Your task to perform on an android device: stop showing notifications on the lock screen Image 0: 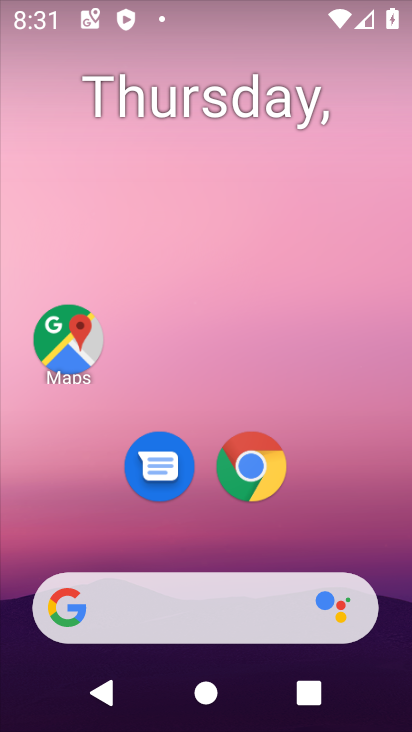
Step 0: drag from (357, 517) to (294, 161)
Your task to perform on an android device: stop showing notifications on the lock screen Image 1: 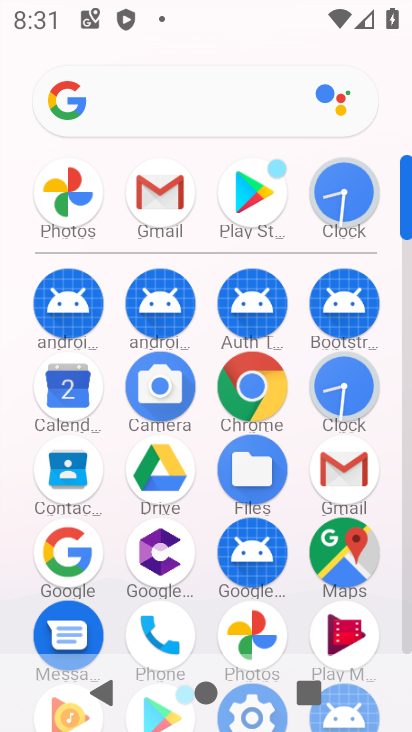
Step 1: drag from (108, 608) to (87, 365)
Your task to perform on an android device: stop showing notifications on the lock screen Image 2: 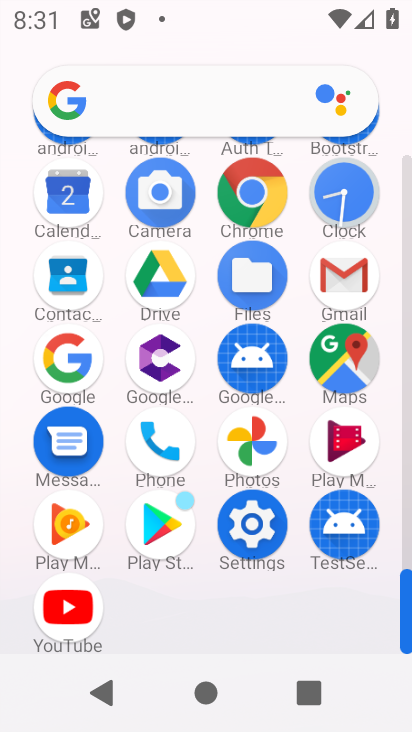
Step 2: click (240, 521)
Your task to perform on an android device: stop showing notifications on the lock screen Image 3: 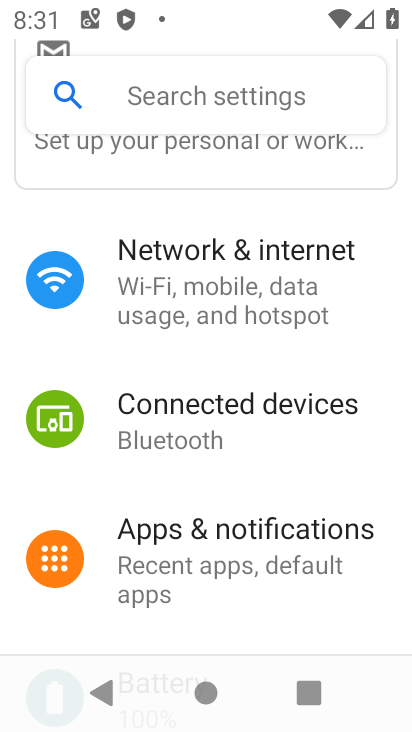
Step 3: click (233, 517)
Your task to perform on an android device: stop showing notifications on the lock screen Image 4: 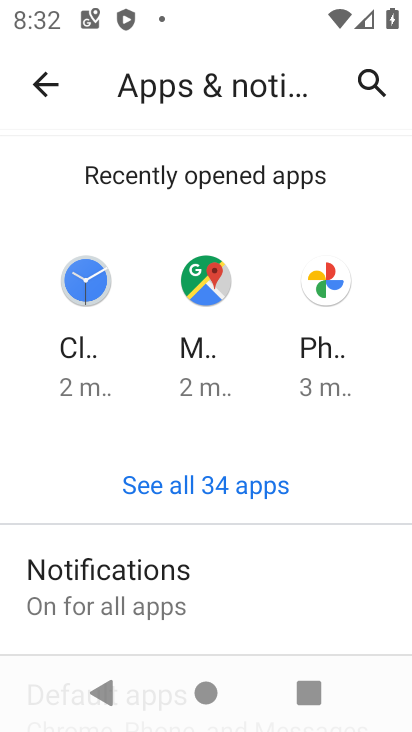
Step 4: drag from (313, 452) to (278, 100)
Your task to perform on an android device: stop showing notifications on the lock screen Image 5: 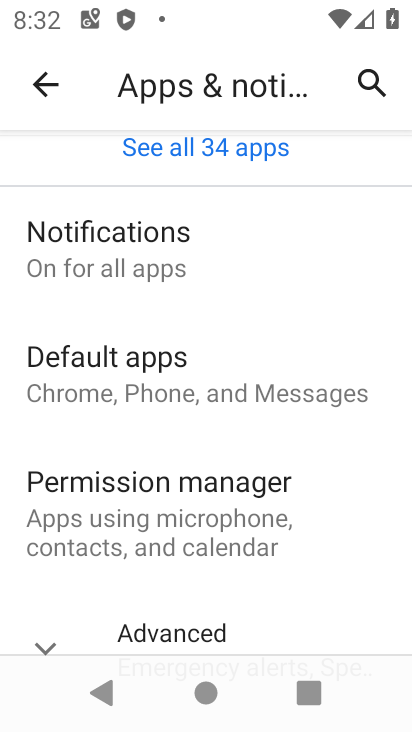
Step 5: drag from (291, 577) to (290, 233)
Your task to perform on an android device: stop showing notifications on the lock screen Image 6: 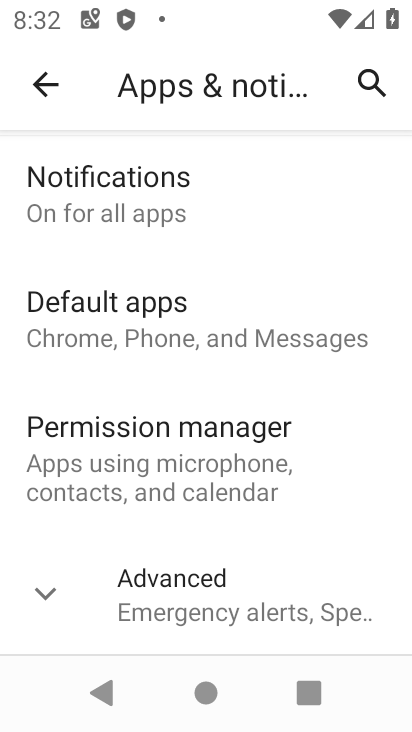
Step 6: drag from (265, 160) to (217, 358)
Your task to perform on an android device: stop showing notifications on the lock screen Image 7: 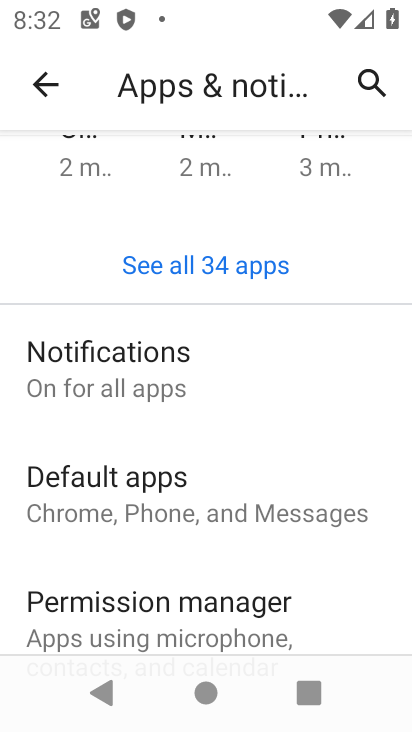
Step 7: click (217, 351)
Your task to perform on an android device: stop showing notifications on the lock screen Image 8: 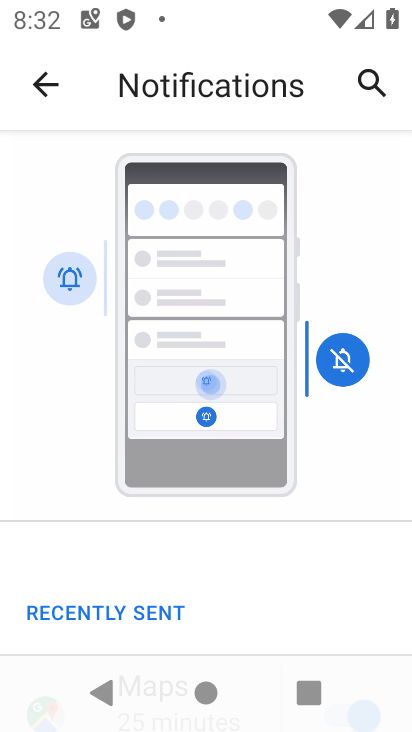
Step 8: drag from (262, 545) to (234, 32)
Your task to perform on an android device: stop showing notifications on the lock screen Image 9: 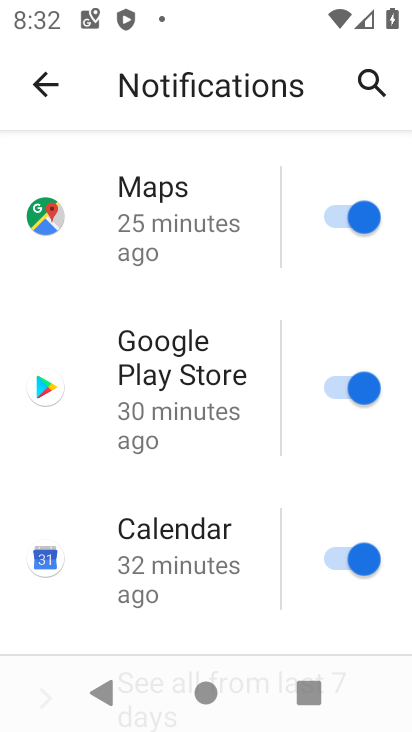
Step 9: drag from (196, 625) to (125, 28)
Your task to perform on an android device: stop showing notifications on the lock screen Image 10: 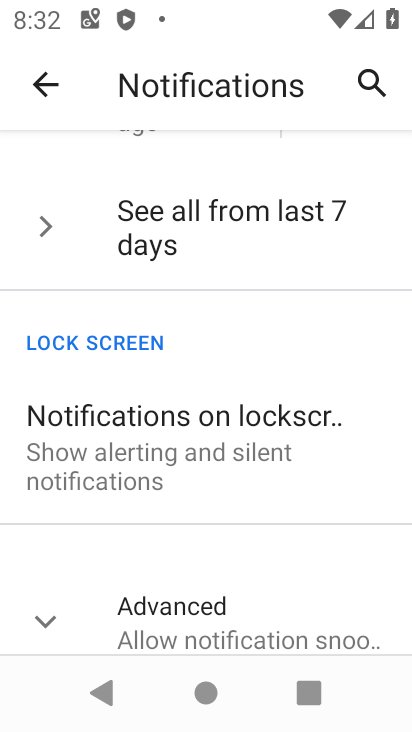
Step 10: click (116, 402)
Your task to perform on an android device: stop showing notifications on the lock screen Image 11: 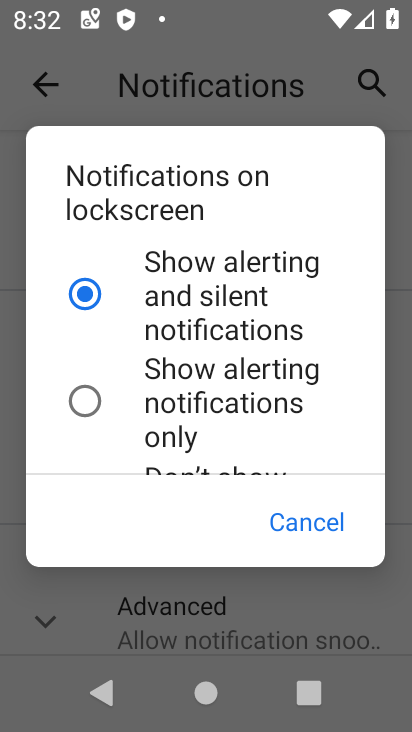
Step 11: drag from (114, 358) to (97, 177)
Your task to perform on an android device: stop showing notifications on the lock screen Image 12: 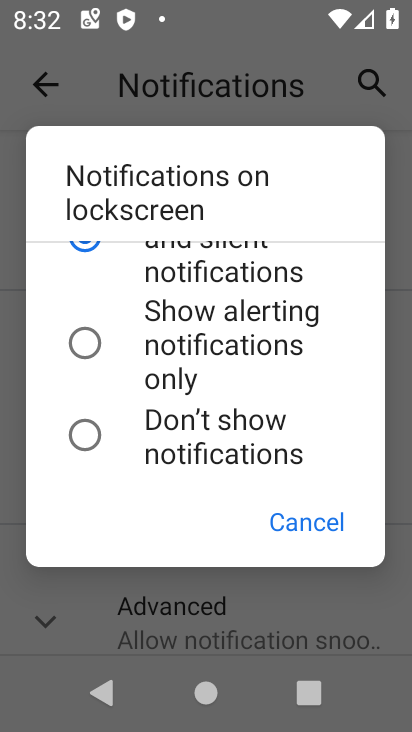
Step 12: click (88, 424)
Your task to perform on an android device: stop showing notifications on the lock screen Image 13: 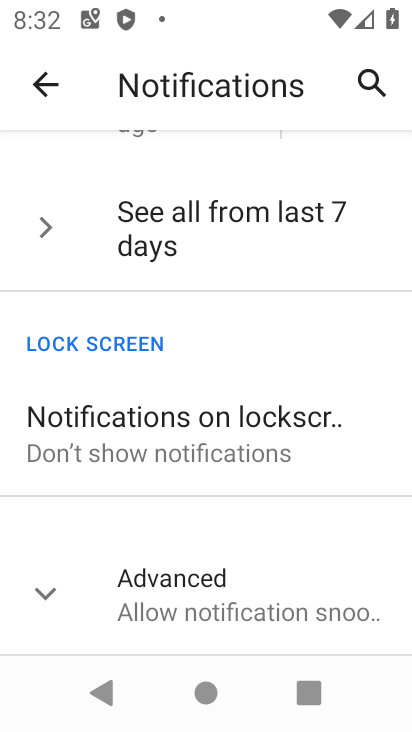
Step 13: task complete